Your task to perform on an android device: delete a single message in the gmail app Image 0: 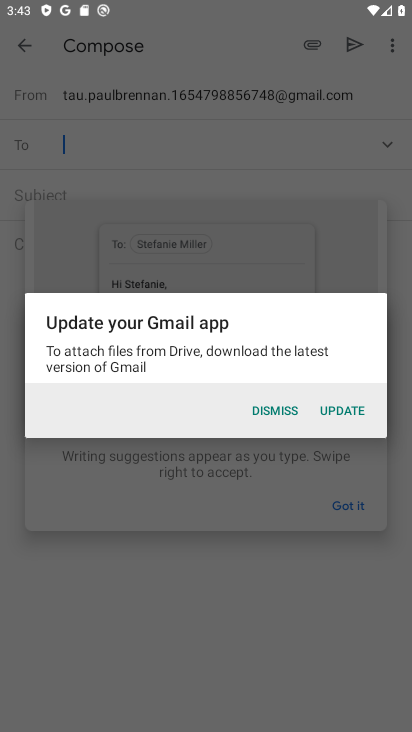
Step 0: press home button
Your task to perform on an android device: delete a single message in the gmail app Image 1: 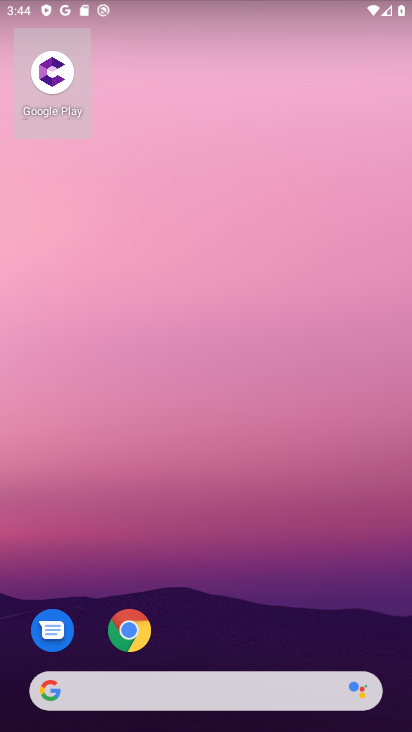
Step 1: drag from (220, 686) to (288, 178)
Your task to perform on an android device: delete a single message in the gmail app Image 2: 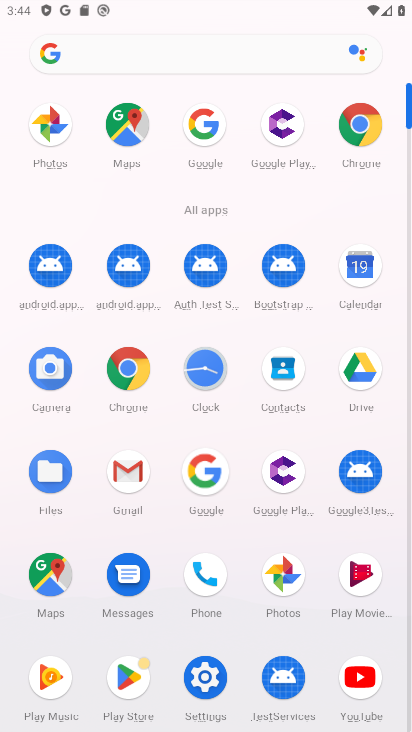
Step 2: click (142, 486)
Your task to perform on an android device: delete a single message in the gmail app Image 3: 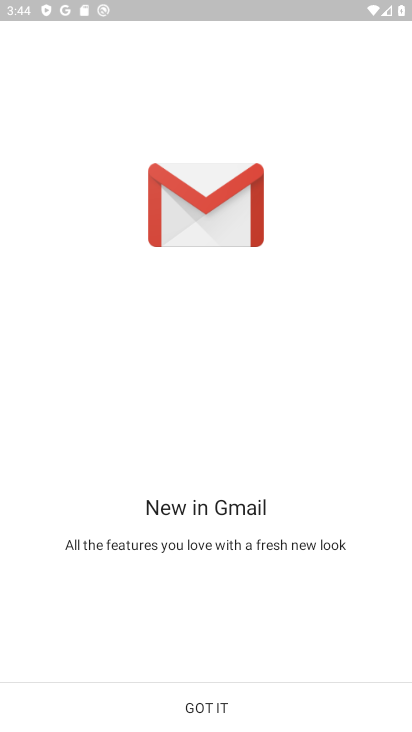
Step 3: click (270, 710)
Your task to perform on an android device: delete a single message in the gmail app Image 4: 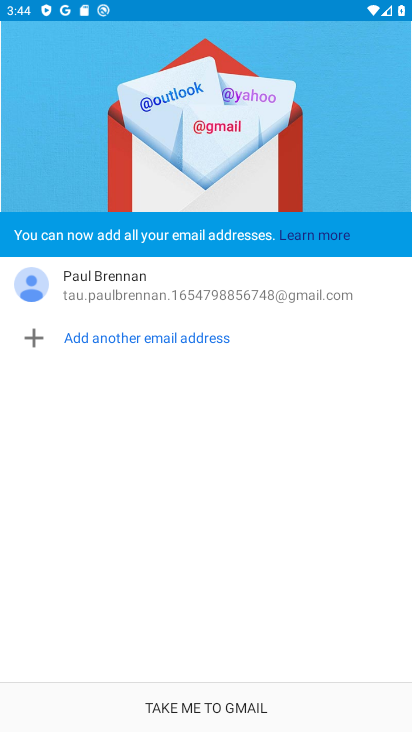
Step 4: click (270, 710)
Your task to perform on an android device: delete a single message in the gmail app Image 5: 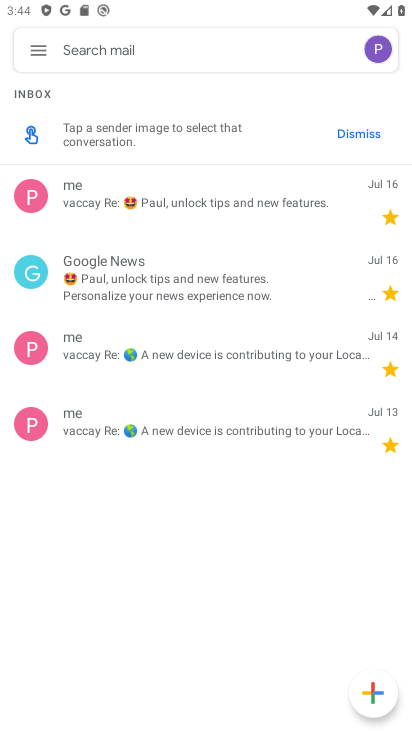
Step 5: click (200, 221)
Your task to perform on an android device: delete a single message in the gmail app Image 6: 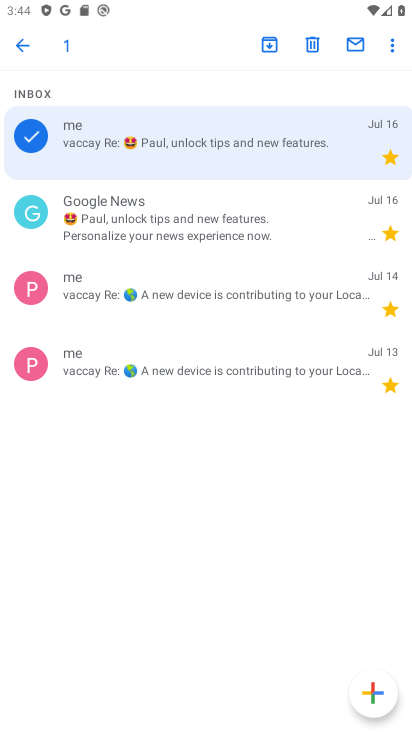
Step 6: click (312, 40)
Your task to perform on an android device: delete a single message in the gmail app Image 7: 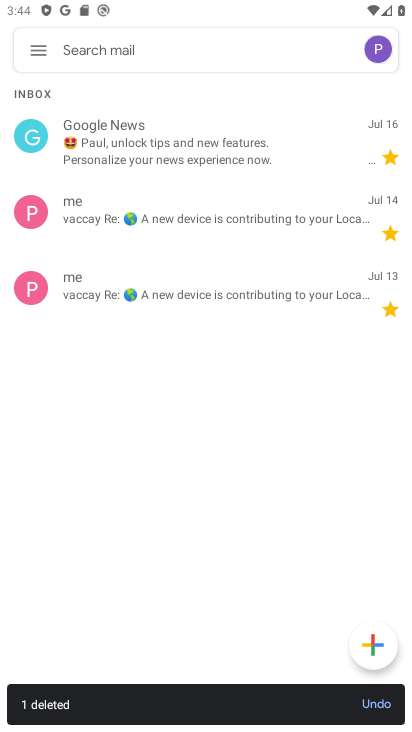
Step 7: task complete